Your task to perform on an android device: What is the recent news? Image 0: 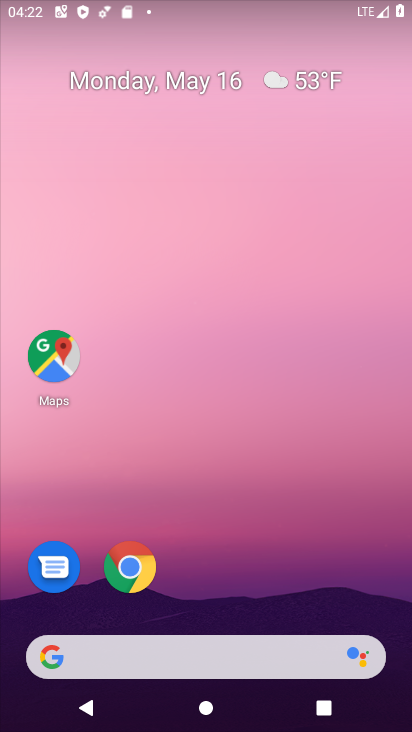
Step 0: drag from (229, 670) to (255, 67)
Your task to perform on an android device: What is the recent news? Image 1: 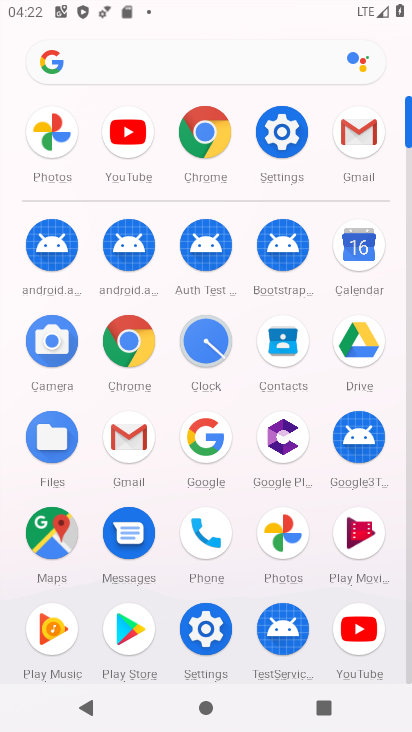
Step 1: click (135, 342)
Your task to perform on an android device: What is the recent news? Image 2: 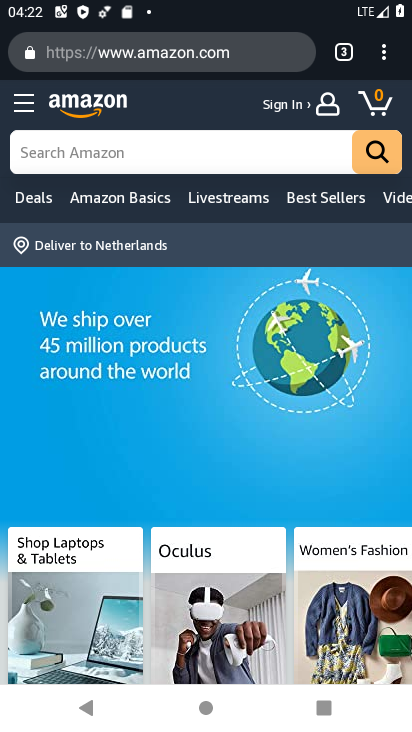
Step 2: click (212, 49)
Your task to perform on an android device: What is the recent news? Image 3: 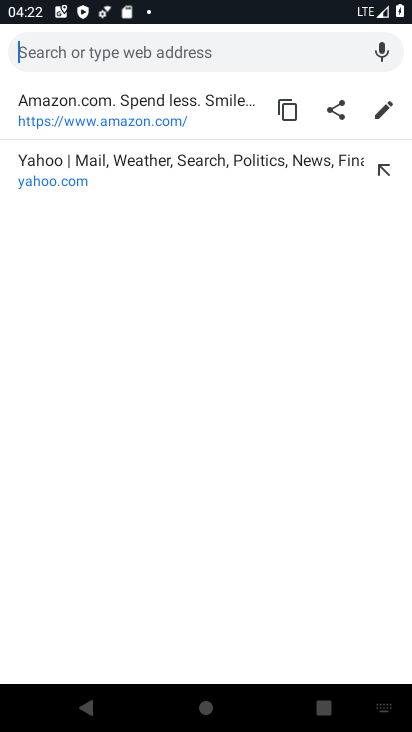
Step 3: type "recent news"
Your task to perform on an android device: What is the recent news? Image 4: 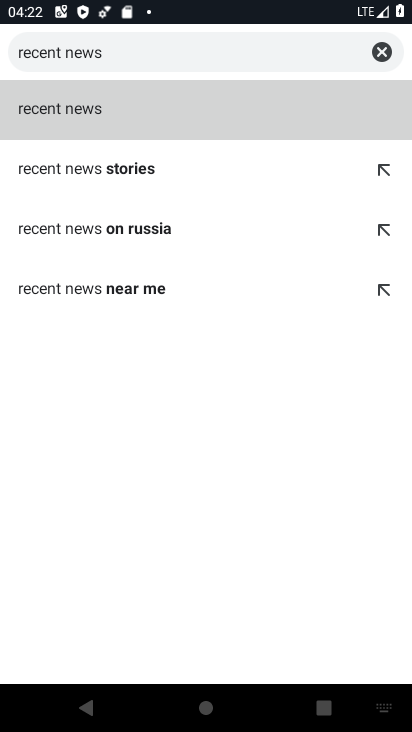
Step 4: click (29, 109)
Your task to perform on an android device: What is the recent news? Image 5: 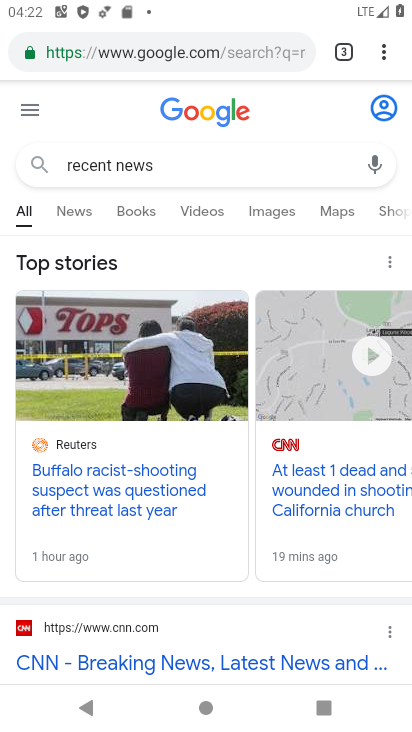
Step 5: task complete